Your task to perform on an android device: turn off javascript in the chrome app Image 0: 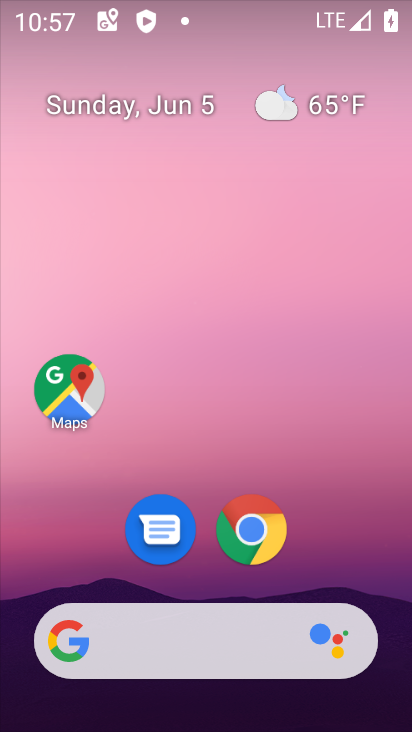
Step 0: click (266, 532)
Your task to perform on an android device: turn off javascript in the chrome app Image 1: 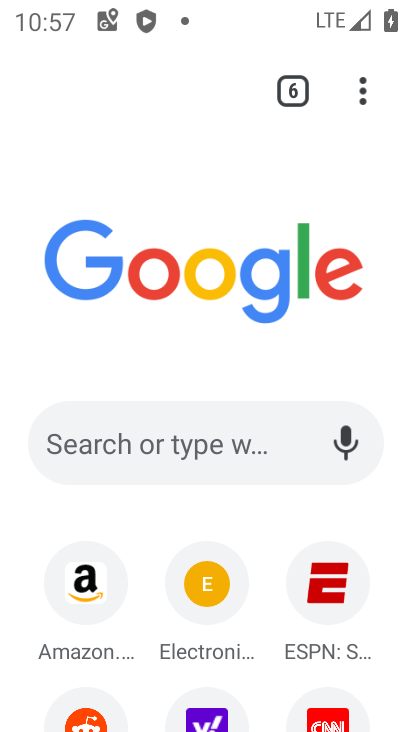
Step 1: click (362, 80)
Your task to perform on an android device: turn off javascript in the chrome app Image 2: 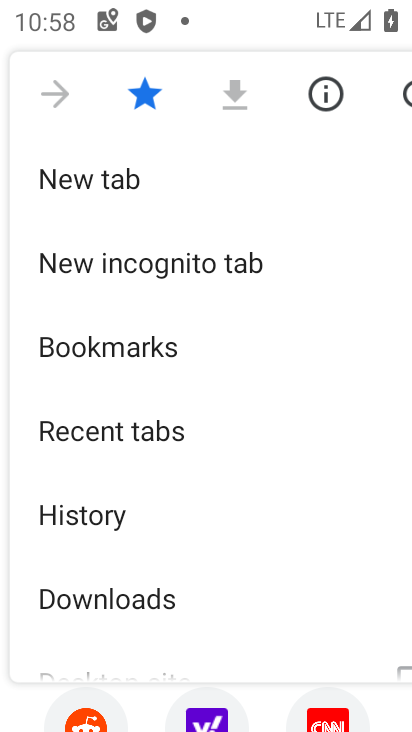
Step 2: drag from (113, 522) to (132, 38)
Your task to perform on an android device: turn off javascript in the chrome app Image 3: 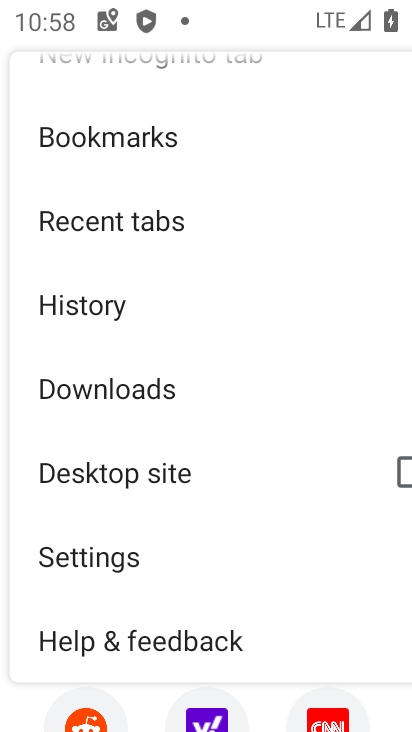
Step 3: click (123, 551)
Your task to perform on an android device: turn off javascript in the chrome app Image 4: 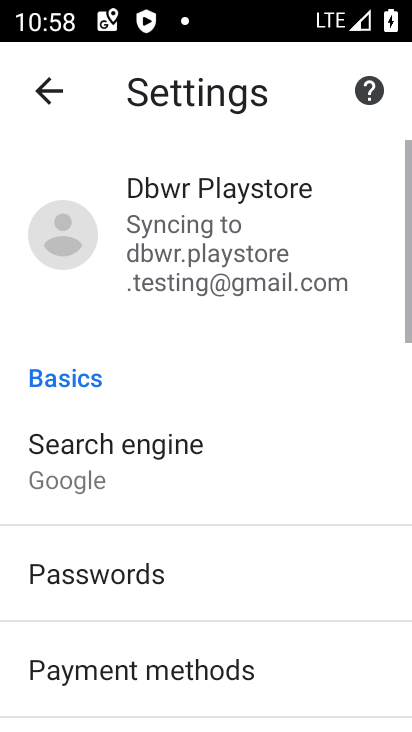
Step 4: drag from (255, 674) to (280, 191)
Your task to perform on an android device: turn off javascript in the chrome app Image 5: 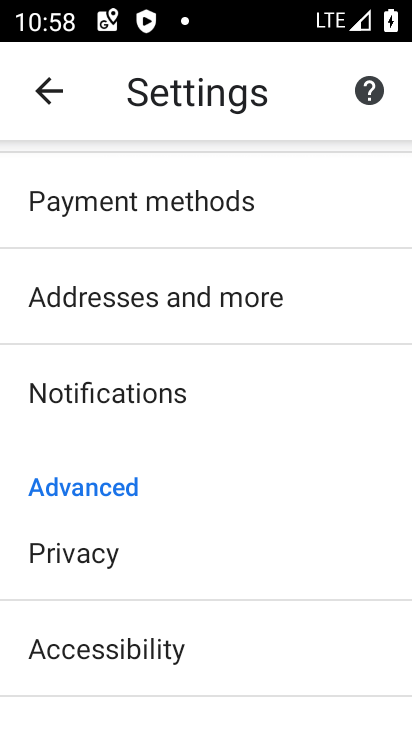
Step 5: drag from (223, 666) to (289, 88)
Your task to perform on an android device: turn off javascript in the chrome app Image 6: 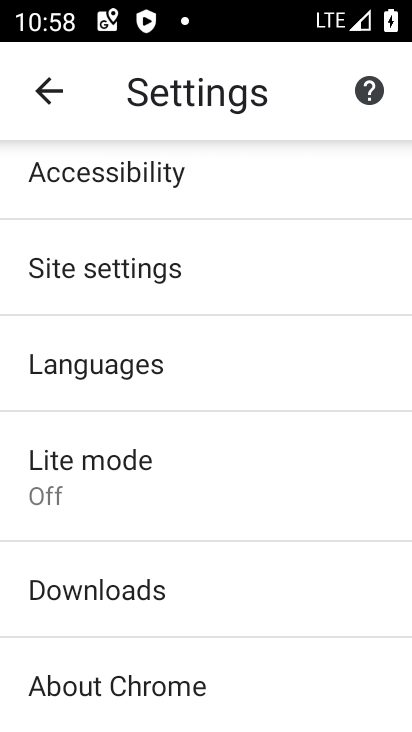
Step 6: click (223, 275)
Your task to perform on an android device: turn off javascript in the chrome app Image 7: 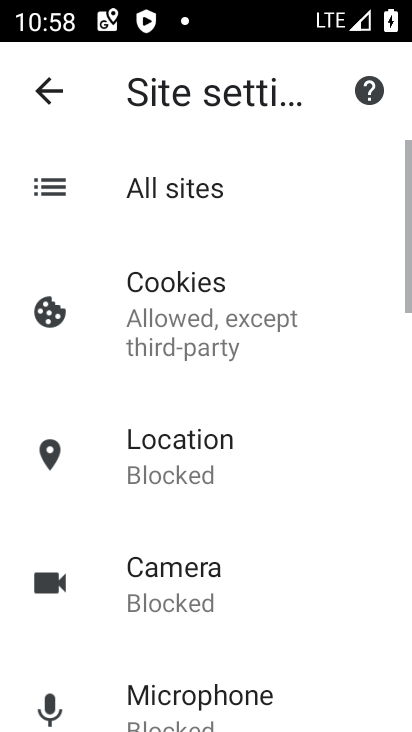
Step 7: drag from (233, 662) to (320, 86)
Your task to perform on an android device: turn off javascript in the chrome app Image 8: 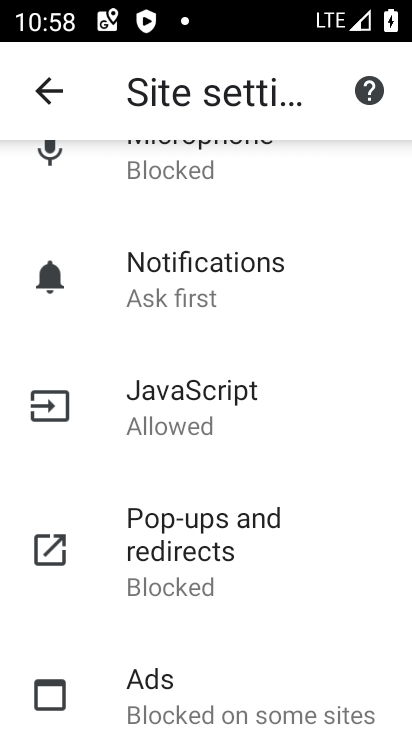
Step 8: click (246, 404)
Your task to perform on an android device: turn off javascript in the chrome app Image 9: 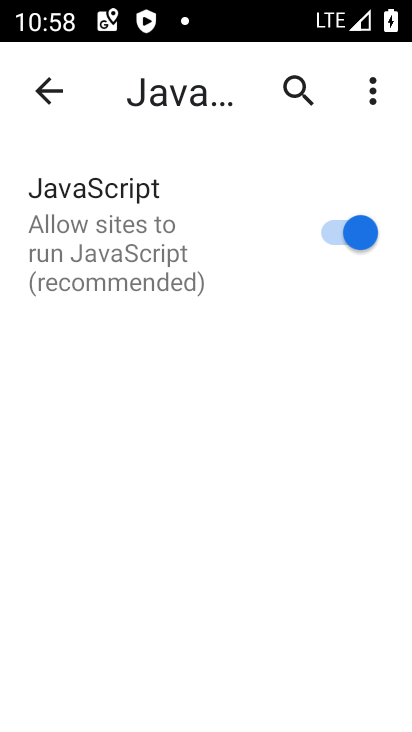
Step 9: click (361, 233)
Your task to perform on an android device: turn off javascript in the chrome app Image 10: 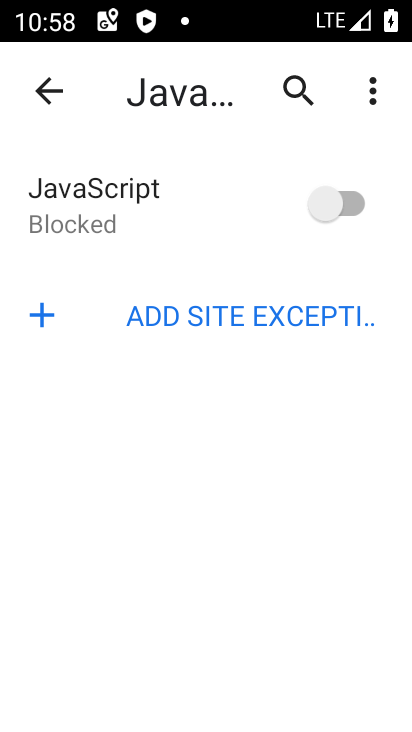
Step 10: task complete